Your task to perform on an android device: empty trash in the gmail app Image 0: 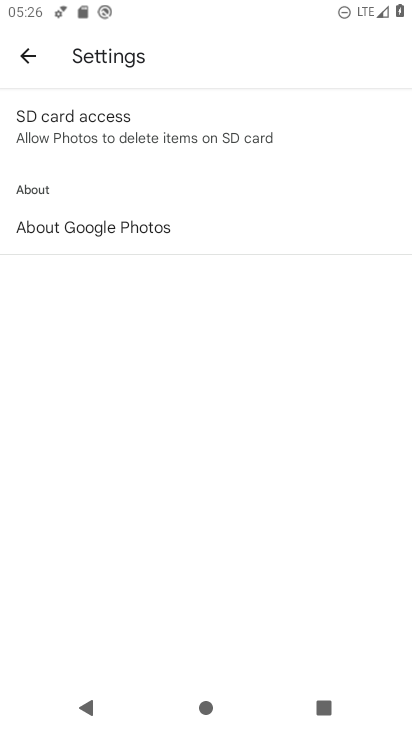
Step 0: drag from (312, 598) to (327, 411)
Your task to perform on an android device: empty trash in the gmail app Image 1: 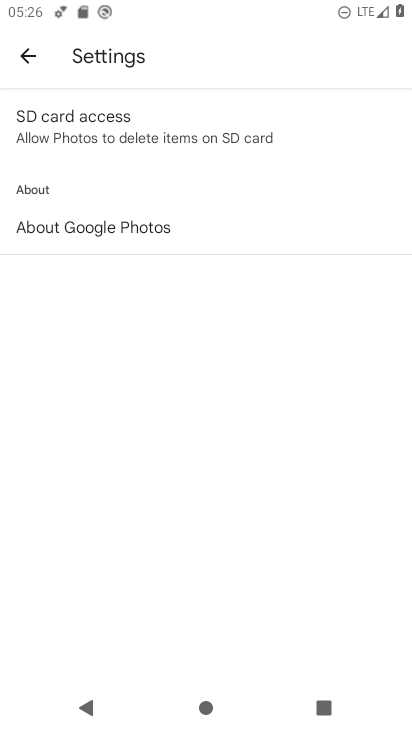
Step 1: press home button
Your task to perform on an android device: empty trash in the gmail app Image 2: 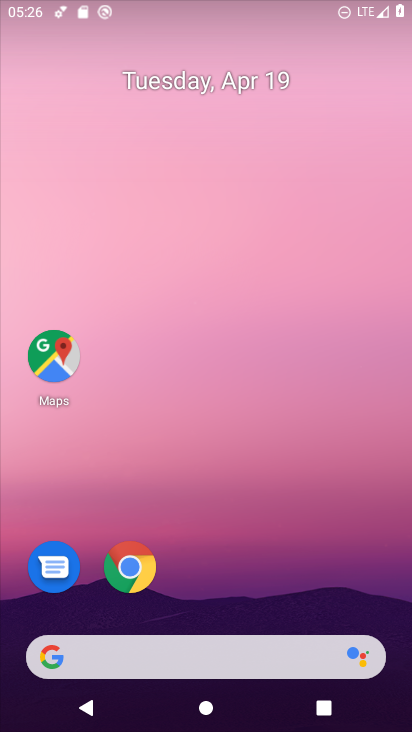
Step 2: drag from (250, 553) to (223, 1)
Your task to perform on an android device: empty trash in the gmail app Image 3: 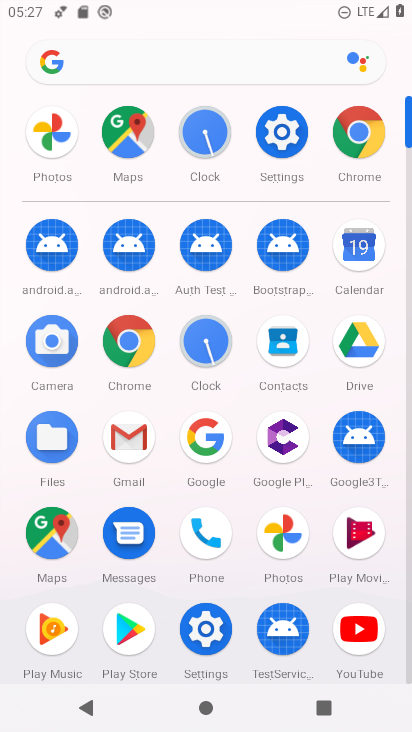
Step 3: click (127, 443)
Your task to perform on an android device: empty trash in the gmail app Image 4: 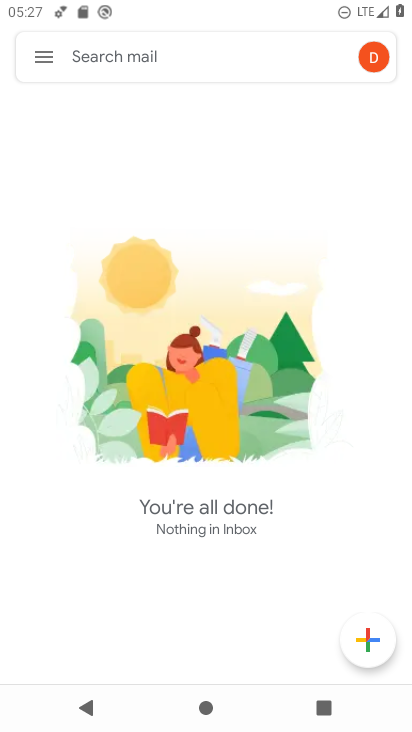
Step 4: click (42, 56)
Your task to perform on an android device: empty trash in the gmail app Image 5: 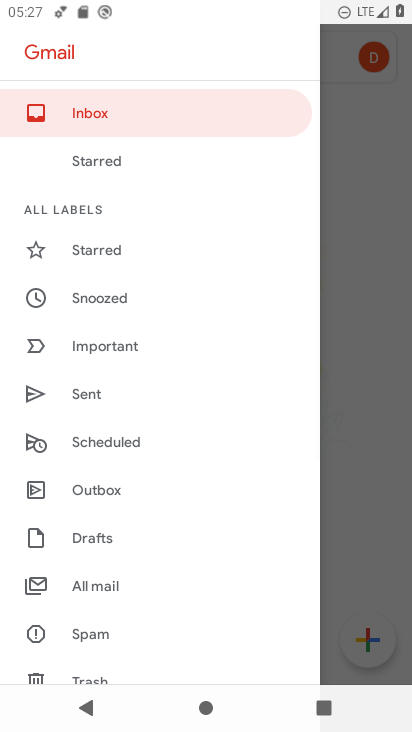
Step 5: click (96, 672)
Your task to perform on an android device: empty trash in the gmail app Image 6: 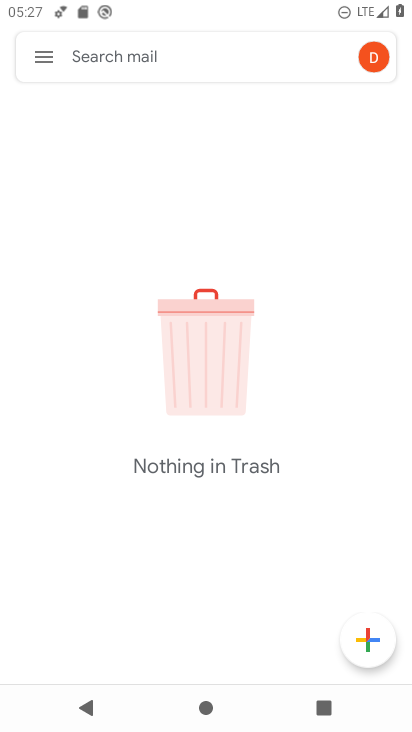
Step 6: task complete